Your task to perform on an android device: turn off notifications in google photos Image 0: 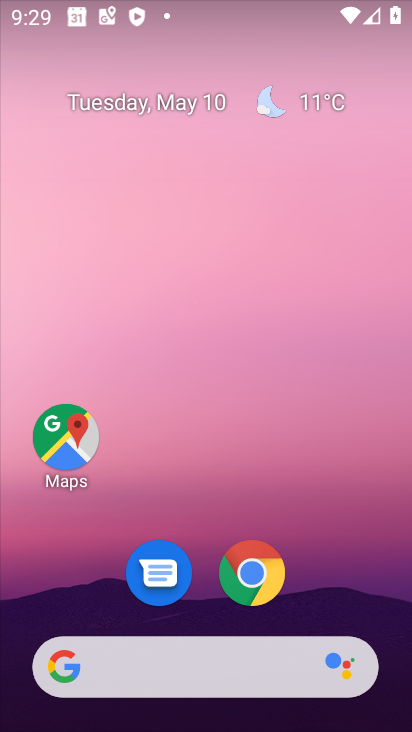
Step 0: drag from (363, 606) to (385, 12)
Your task to perform on an android device: turn off notifications in google photos Image 1: 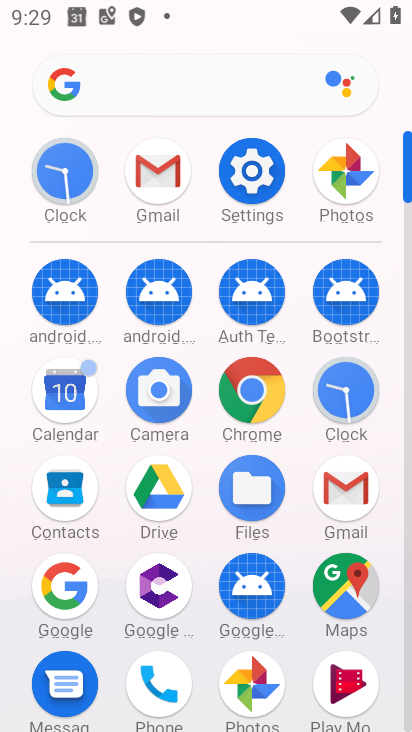
Step 1: click (343, 176)
Your task to perform on an android device: turn off notifications in google photos Image 2: 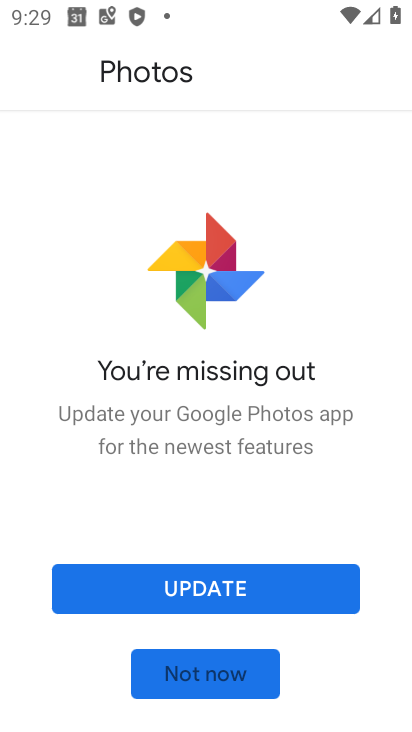
Step 2: click (217, 677)
Your task to perform on an android device: turn off notifications in google photos Image 3: 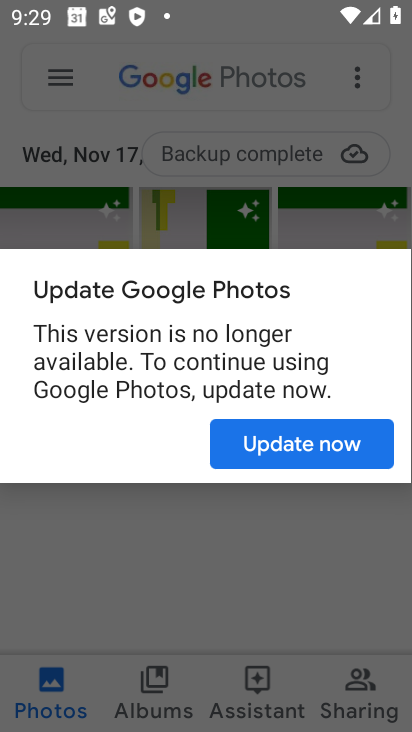
Step 3: click (258, 453)
Your task to perform on an android device: turn off notifications in google photos Image 4: 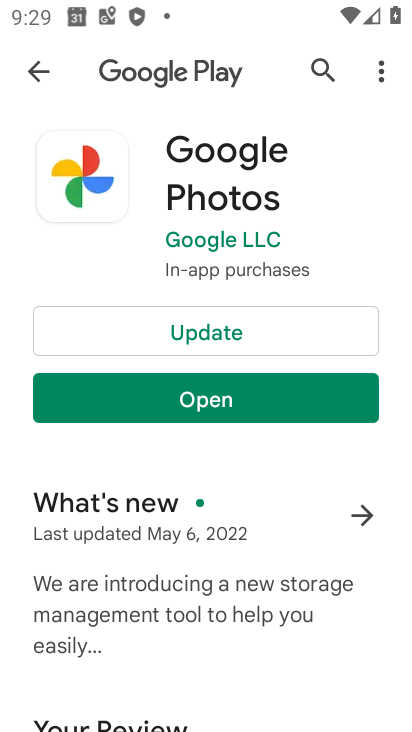
Step 4: click (186, 399)
Your task to perform on an android device: turn off notifications in google photos Image 5: 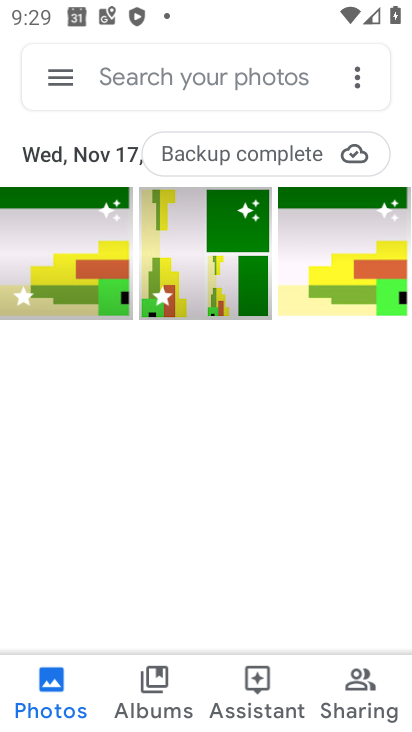
Step 5: click (57, 75)
Your task to perform on an android device: turn off notifications in google photos Image 6: 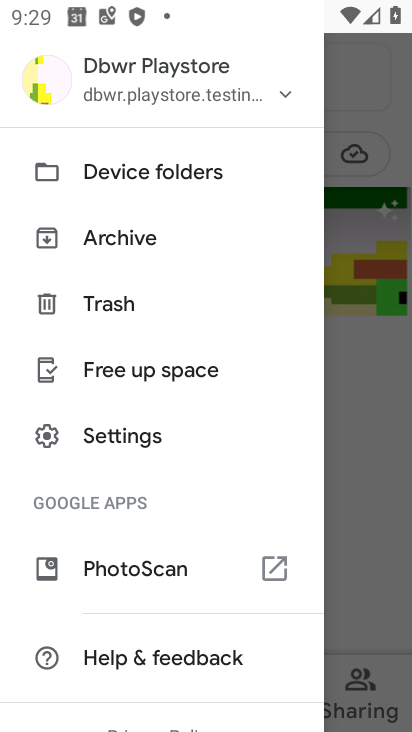
Step 6: click (121, 442)
Your task to perform on an android device: turn off notifications in google photos Image 7: 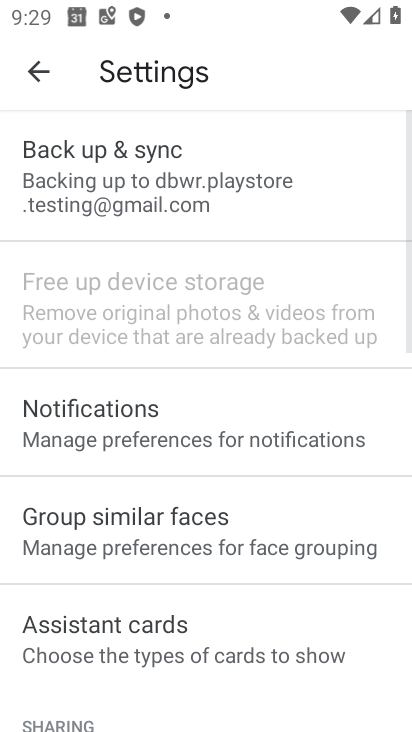
Step 7: click (107, 430)
Your task to perform on an android device: turn off notifications in google photos Image 8: 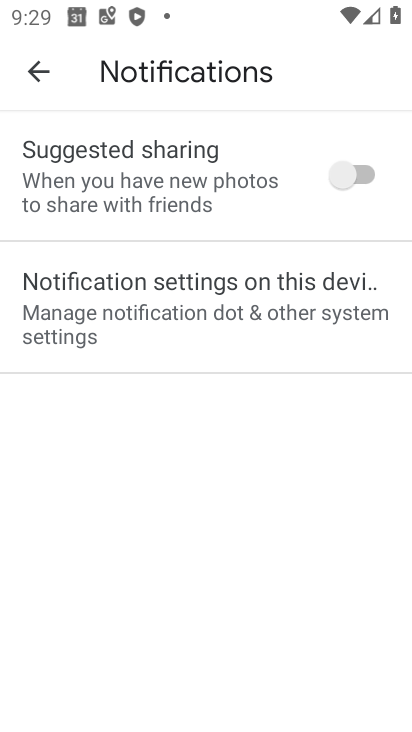
Step 8: click (192, 314)
Your task to perform on an android device: turn off notifications in google photos Image 9: 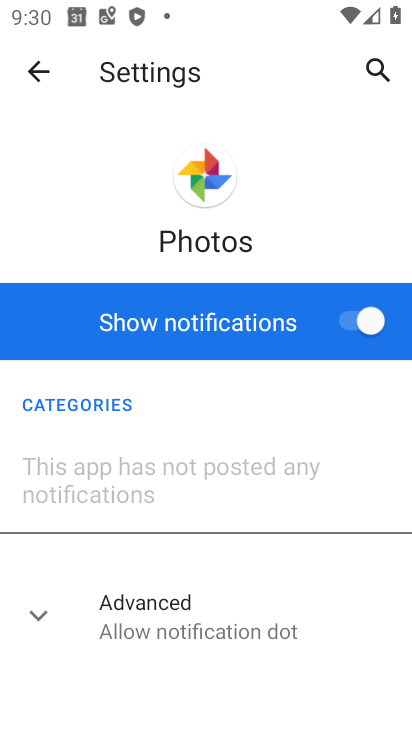
Step 9: click (367, 328)
Your task to perform on an android device: turn off notifications in google photos Image 10: 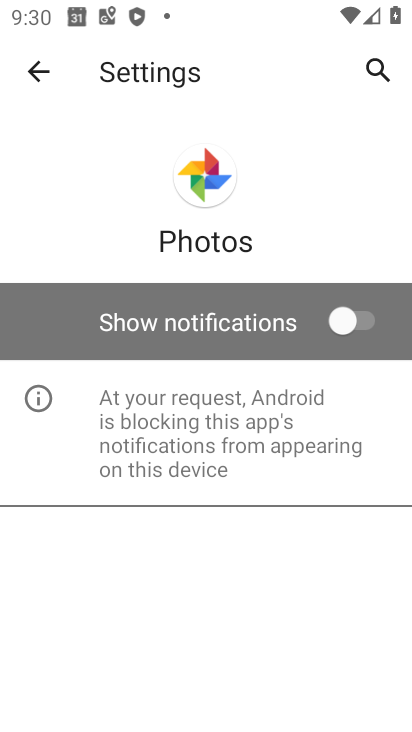
Step 10: task complete